Your task to perform on an android device: set the timer Image 0: 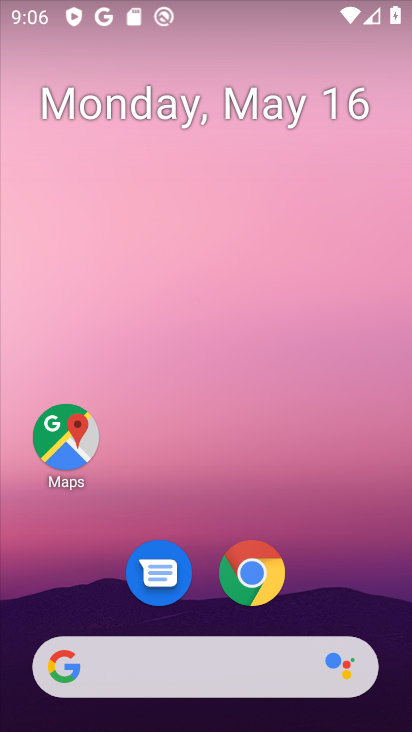
Step 0: drag from (343, 584) to (304, 84)
Your task to perform on an android device: set the timer Image 1: 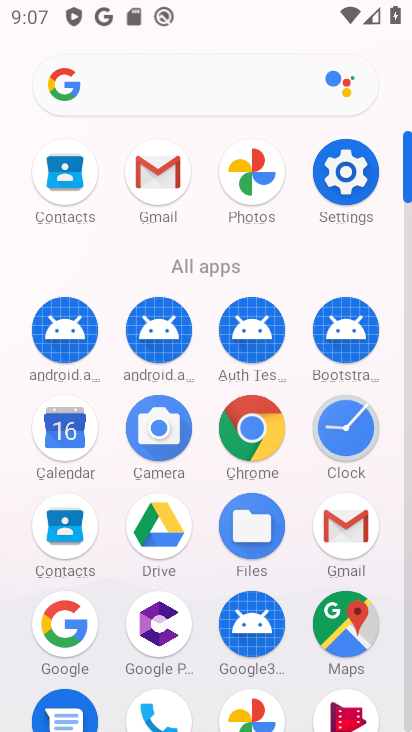
Step 1: click (341, 429)
Your task to perform on an android device: set the timer Image 2: 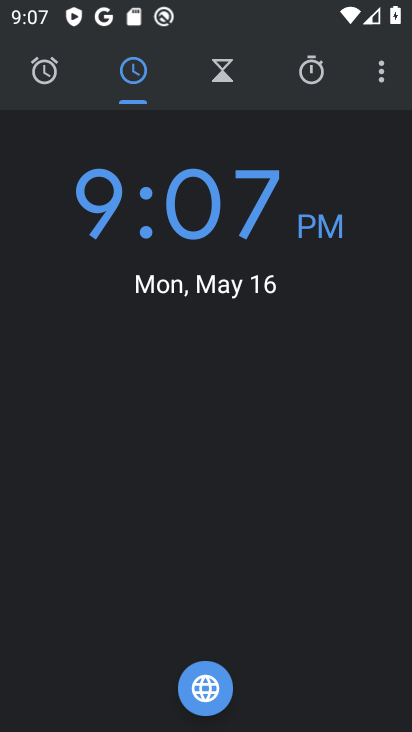
Step 2: click (195, 67)
Your task to perform on an android device: set the timer Image 3: 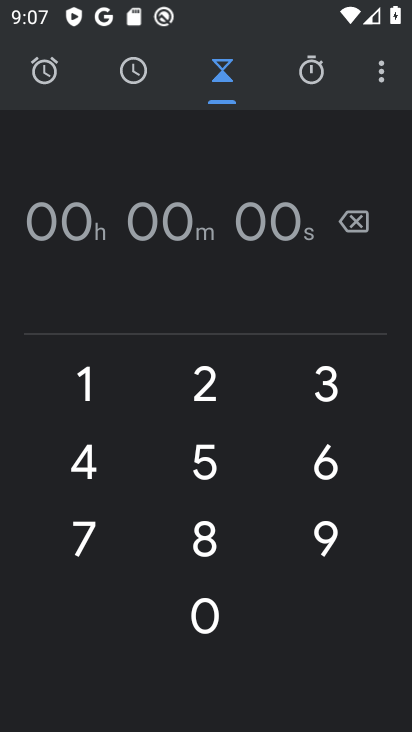
Step 3: click (212, 476)
Your task to perform on an android device: set the timer Image 4: 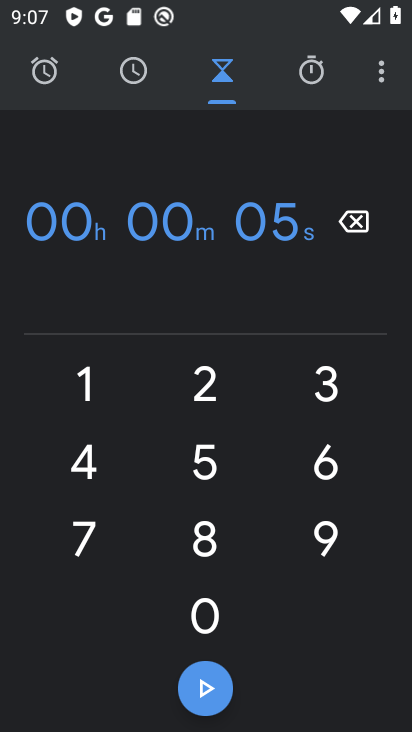
Step 4: task complete